Your task to perform on an android device: Check the settings for the Amazon Alexa app Image 0: 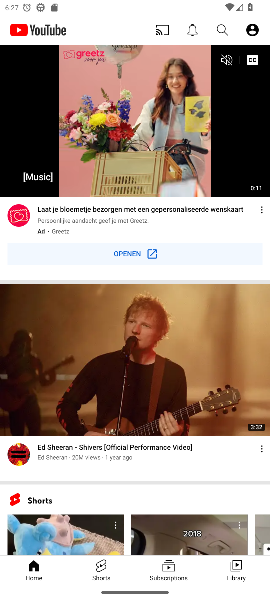
Step 0: press home button
Your task to perform on an android device: Check the settings for the Amazon Alexa app Image 1: 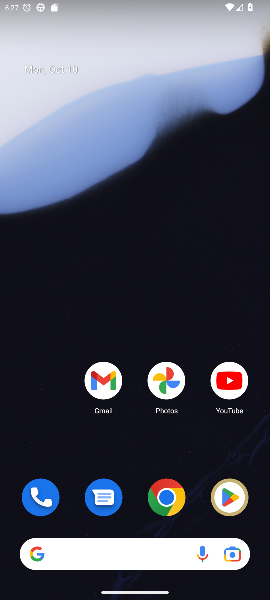
Step 1: drag from (132, 481) to (181, 148)
Your task to perform on an android device: Check the settings for the Amazon Alexa app Image 2: 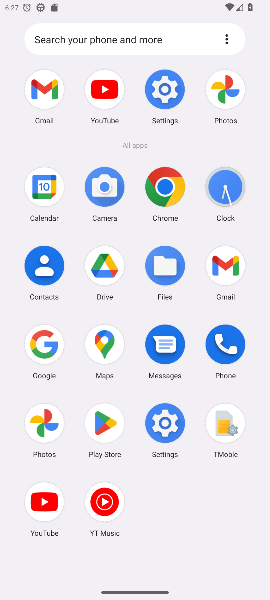
Step 2: click (46, 341)
Your task to perform on an android device: Check the settings for the Amazon Alexa app Image 3: 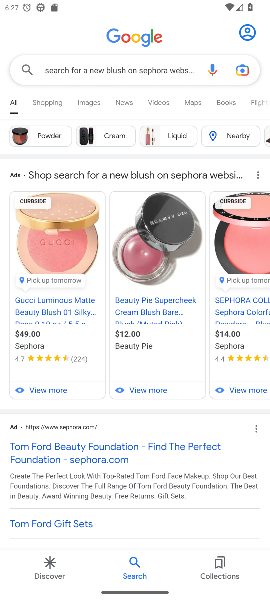
Step 3: click (176, 67)
Your task to perform on an android device: Check the settings for the Amazon Alexa app Image 4: 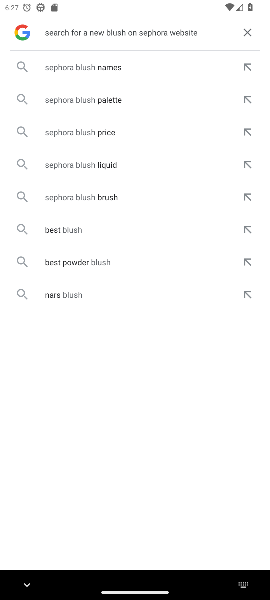
Step 4: click (247, 28)
Your task to perform on an android device: Check the settings for the Amazon Alexa app Image 5: 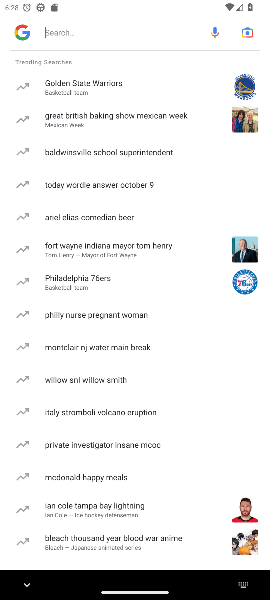
Step 5: click (122, 38)
Your task to perform on an android device: Check the settings for the Amazon Alexa app Image 6: 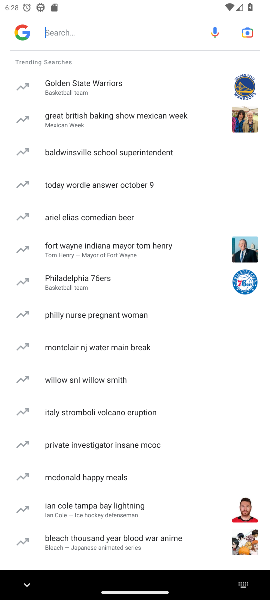
Step 6: type "Check the settings for the Amazon Alexa app "
Your task to perform on an android device: Check the settings for the Amazon Alexa app Image 7: 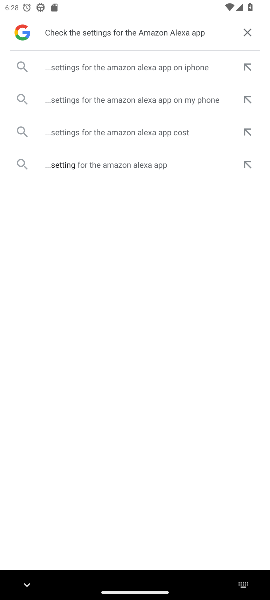
Step 7: click (151, 62)
Your task to perform on an android device: Check the settings for the Amazon Alexa app Image 8: 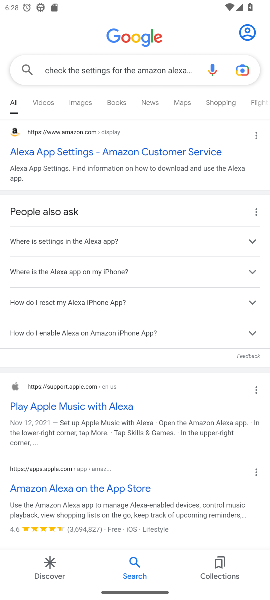
Step 8: click (138, 152)
Your task to perform on an android device: Check the settings for the Amazon Alexa app Image 9: 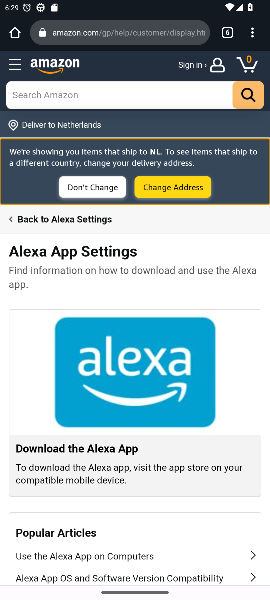
Step 9: task complete